Your task to perform on an android device: change the upload size in google photos Image 0: 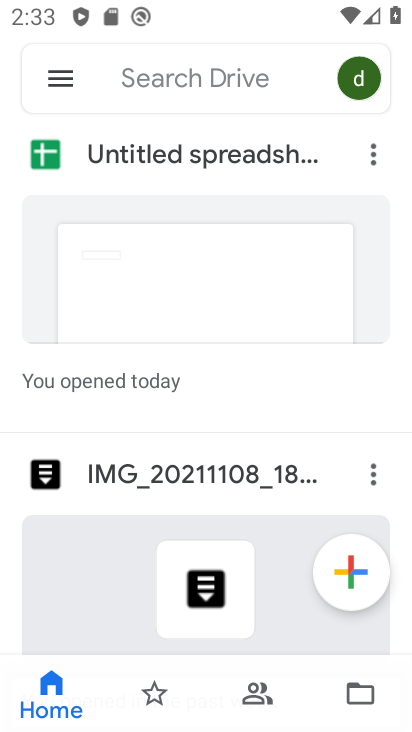
Step 0: press home button
Your task to perform on an android device: change the upload size in google photos Image 1: 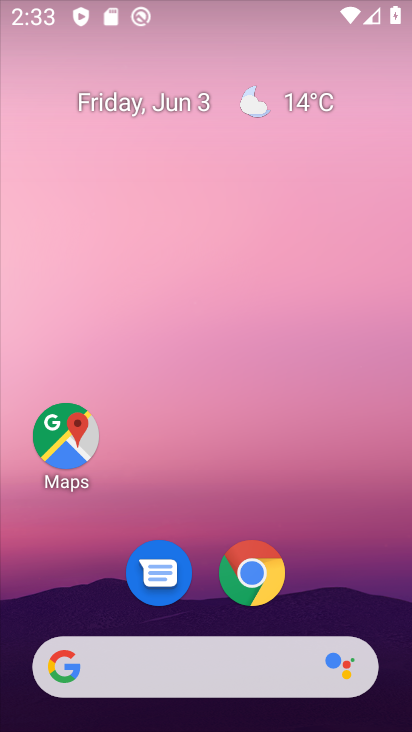
Step 1: drag from (264, 678) to (256, 2)
Your task to perform on an android device: change the upload size in google photos Image 2: 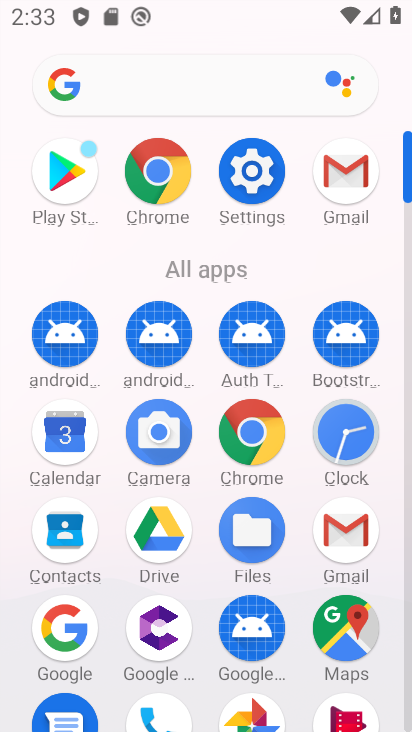
Step 2: drag from (289, 650) to (305, 434)
Your task to perform on an android device: change the upload size in google photos Image 3: 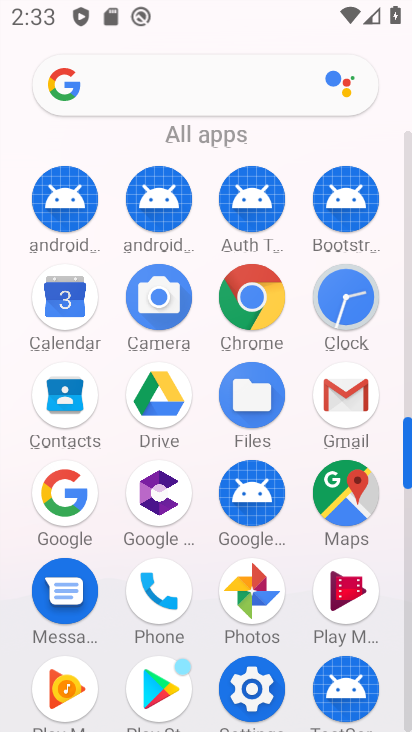
Step 3: click (260, 577)
Your task to perform on an android device: change the upload size in google photos Image 4: 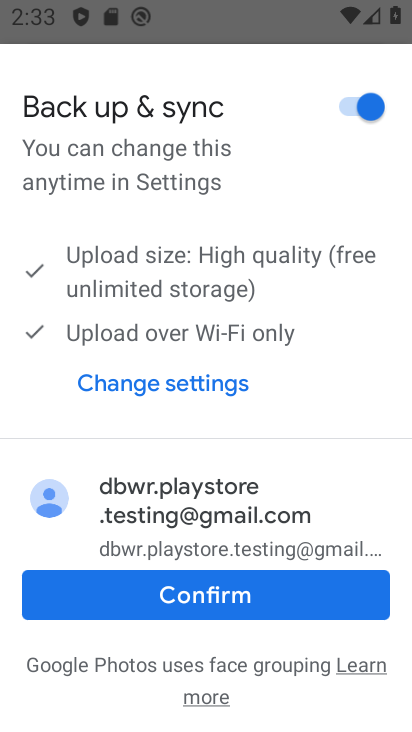
Step 4: click (239, 593)
Your task to perform on an android device: change the upload size in google photos Image 5: 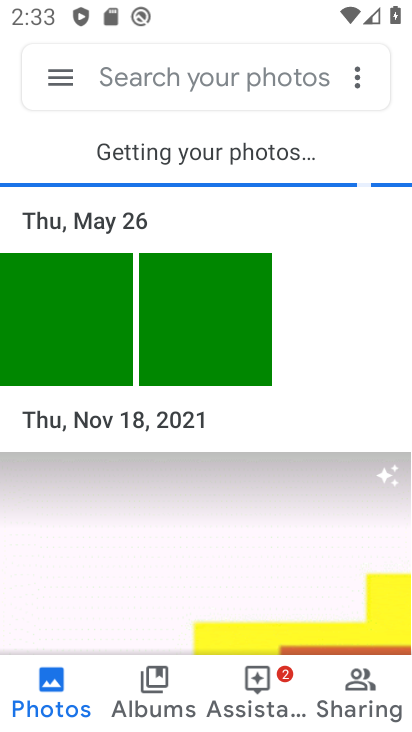
Step 5: click (56, 76)
Your task to perform on an android device: change the upload size in google photos Image 6: 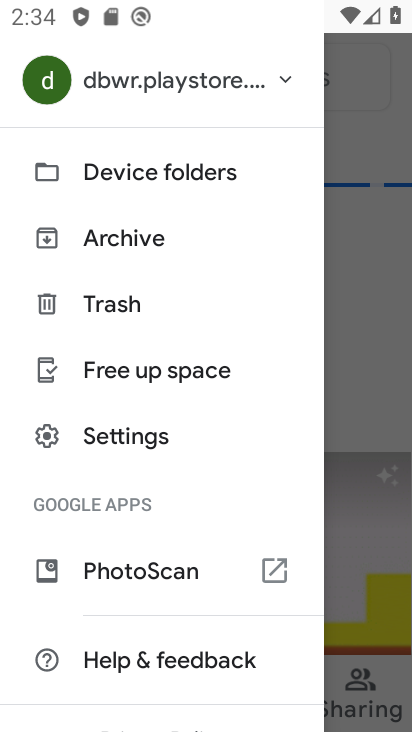
Step 6: drag from (160, 682) to (199, 328)
Your task to perform on an android device: change the upload size in google photos Image 7: 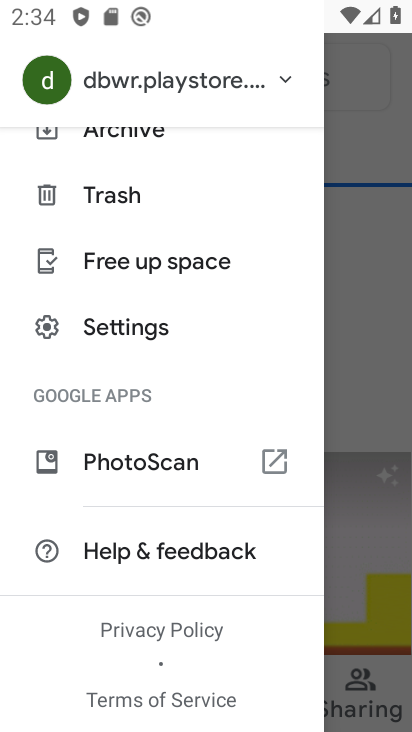
Step 7: click (164, 325)
Your task to perform on an android device: change the upload size in google photos Image 8: 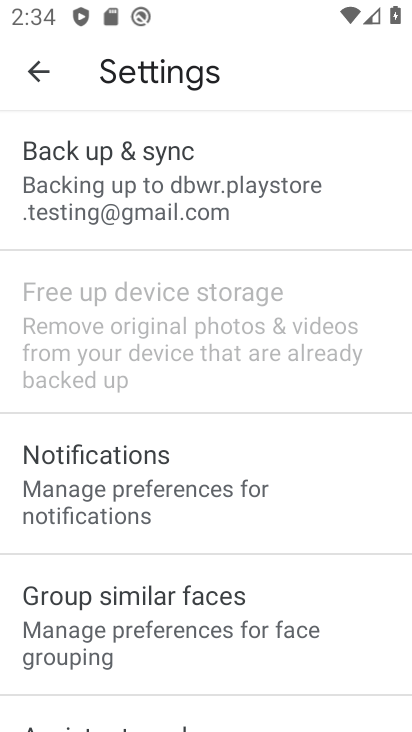
Step 8: click (146, 223)
Your task to perform on an android device: change the upload size in google photos Image 9: 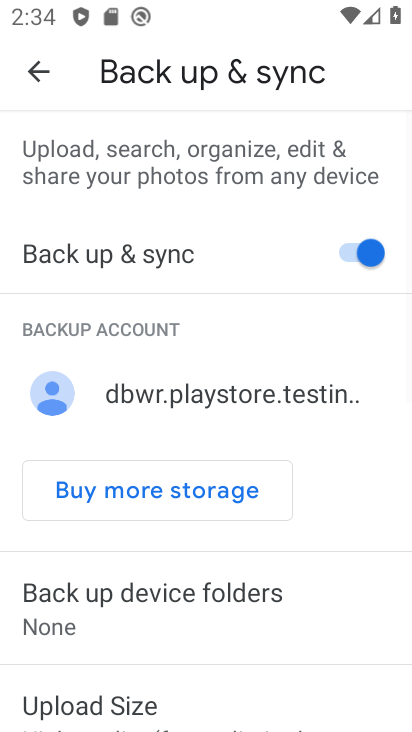
Step 9: drag from (240, 662) to (211, 260)
Your task to perform on an android device: change the upload size in google photos Image 10: 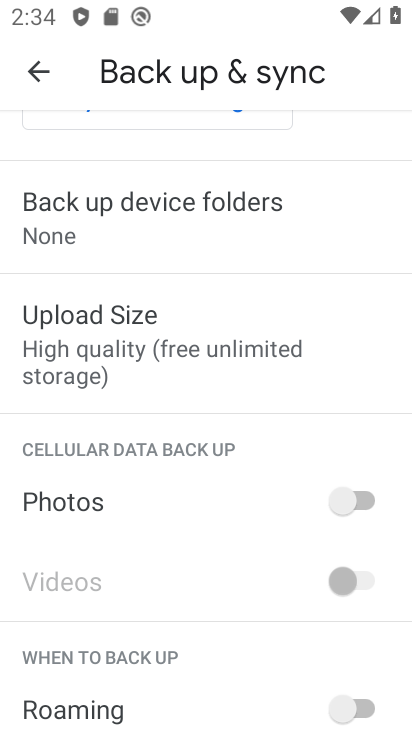
Step 10: click (173, 370)
Your task to perform on an android device: change the upload size in google photos Image 11: 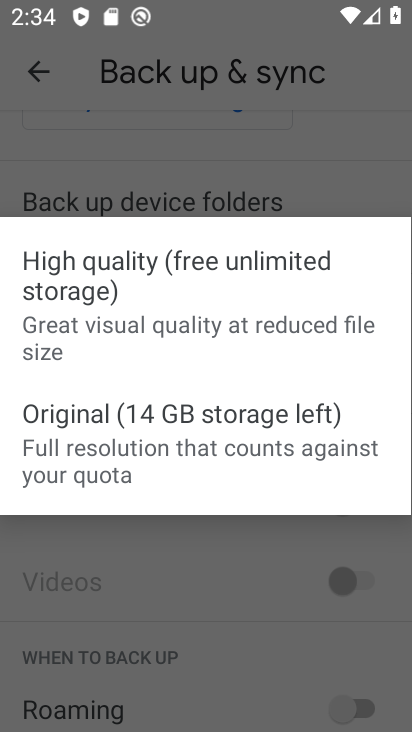
Step 11: click (156, 453)
Your task to perform on an android device: change the upload size in google photos Image 12: 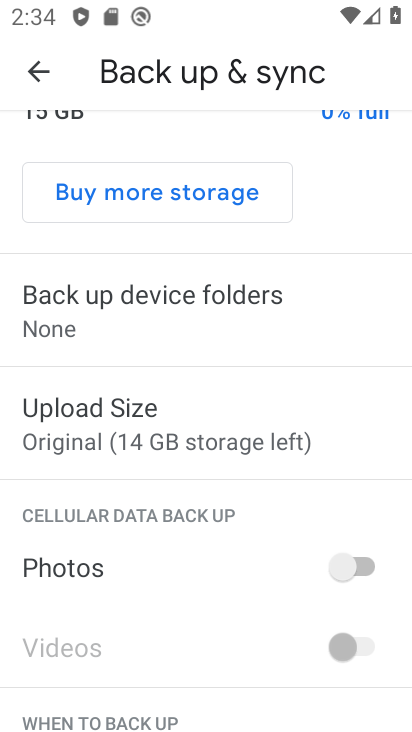
Step 12: task complete